Your task to perform on an android device: Do I have any events tomorrow? Image 0: 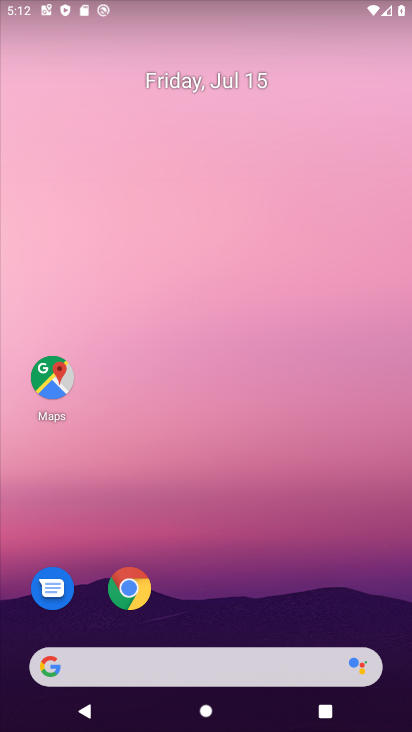
Step 0: drag from (270, 506) to (255, 7)
Your task to perform on an android device: Do I have any events tomorrow? Image 1: 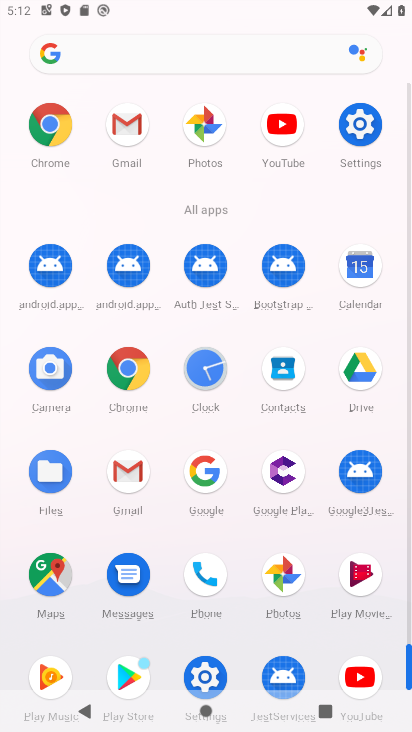
Step 1: click (346, 265)
Your task to perform on an android device: Do I have any events tomorrow? Image 2: 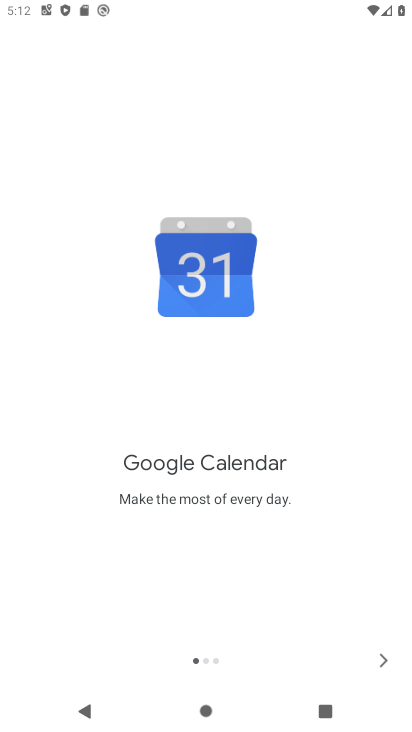
Step 2: click (384, 656)
Your task to perform on an android device: Do I have any events tomorrow? Image 3: 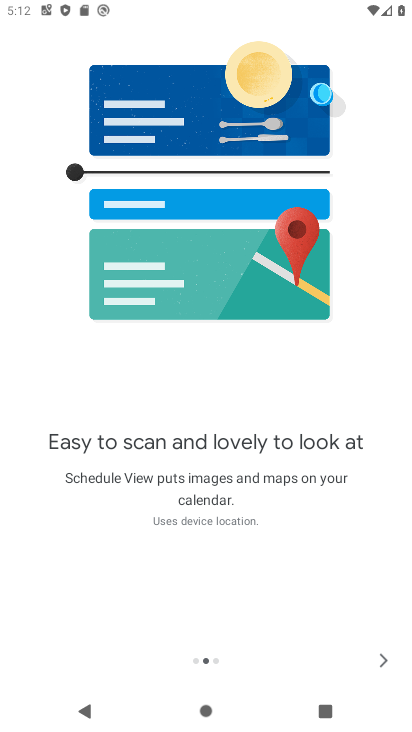
Step 3: click (384, 656)
Your task to perform on an android device: Do I have any events tomorrow? Image 4: 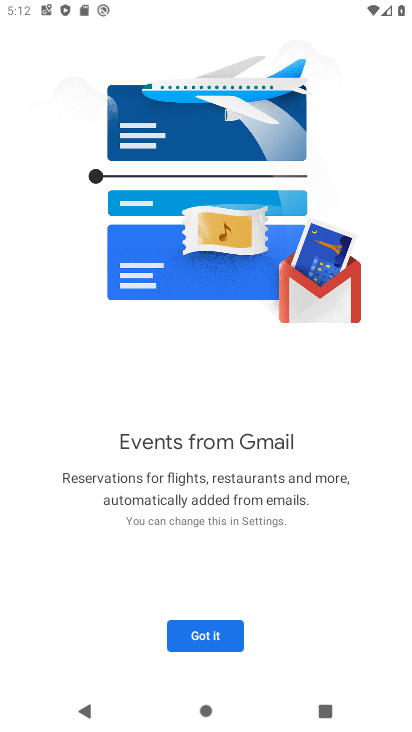
Step 4: click (218, 634)
Your task to perform on an android device: Do I have any events tomorrow? Image 5: 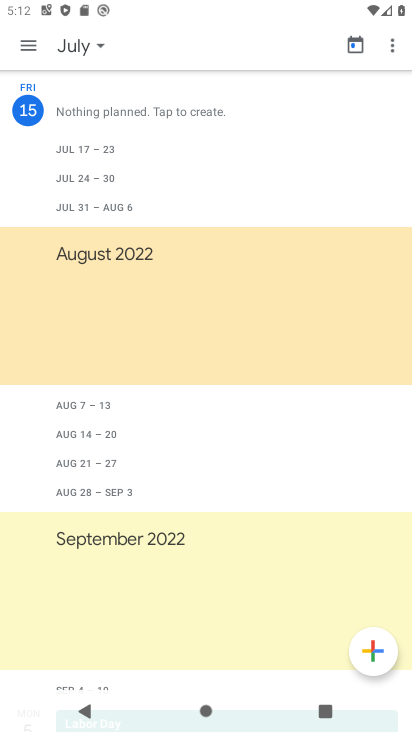
Step 5: click (97, 37)
Your task to perform on an android device: Do I have any events tomorrow? Image 6: 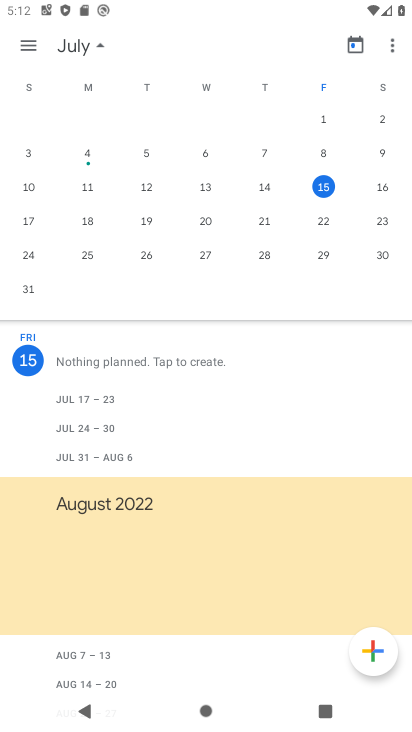
Step 6: click (382, 187)
Your task to perform on an android device: Do I have any events tomorrow? Image 7: 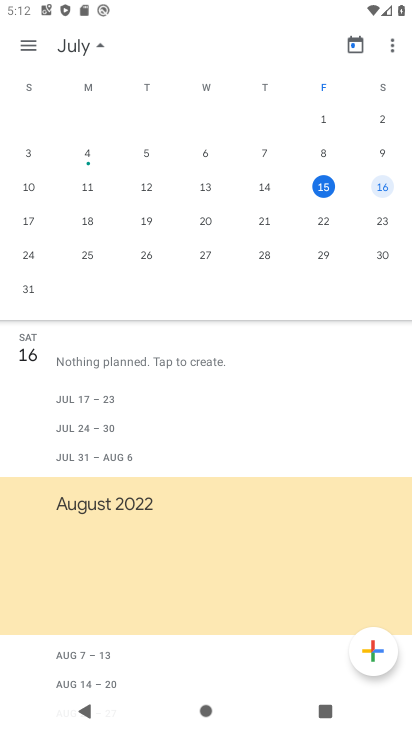
Step 7: task complete